Your task to perform on an android device: open a bookmark in the chrome app Image 0: 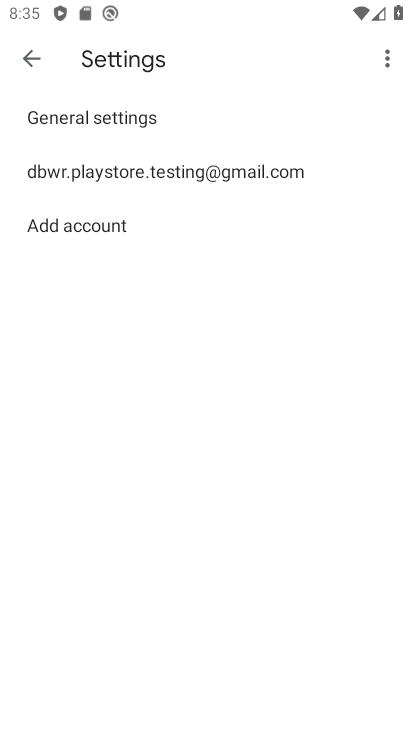
Step 0: press home button
Your task to perform on an android device: open a bookmark in the chrome app Image 1: 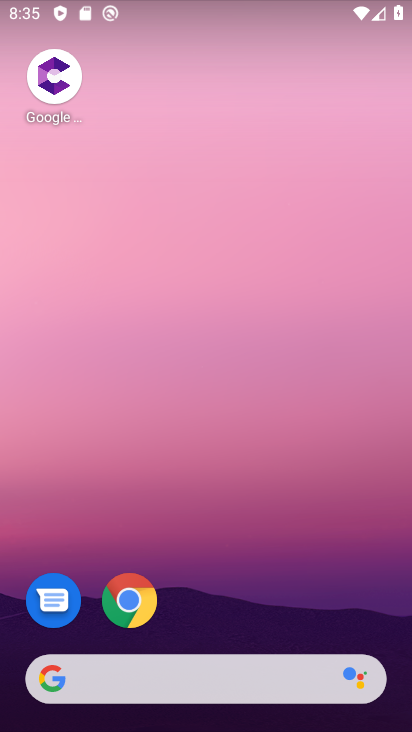
Step 1: click (137, 597)
Your task to perform on an android device: open a bookmark in the chrome app Image 2: 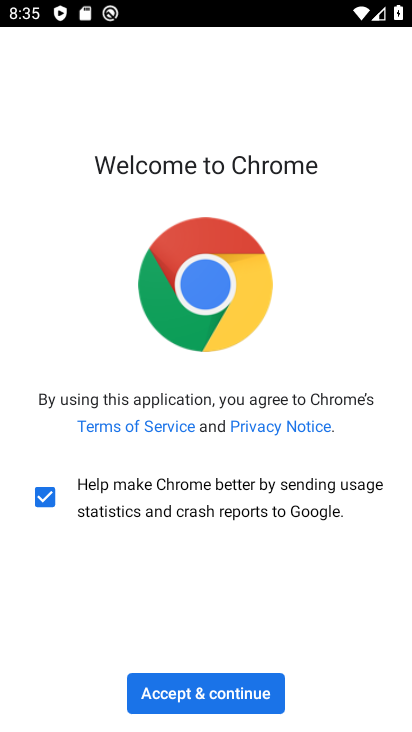
Step 2: click (235, 698)
Your task to perform on an android device: open a bookmark in the chrome app Image 3: 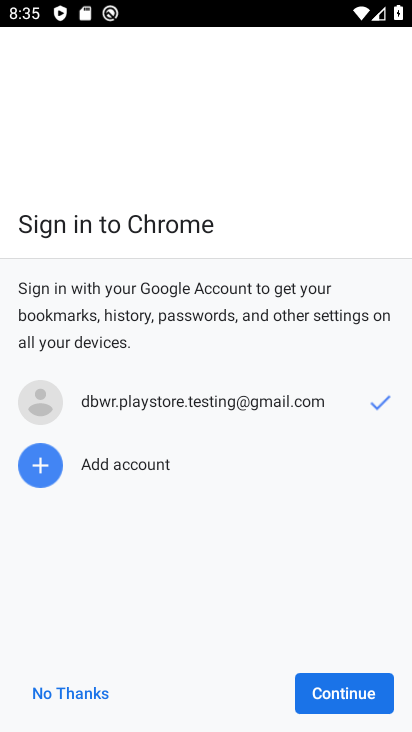
Step 3: click (332, 703)
Your task to perform on an android device: open a bookmark in the chrome app Image 4: 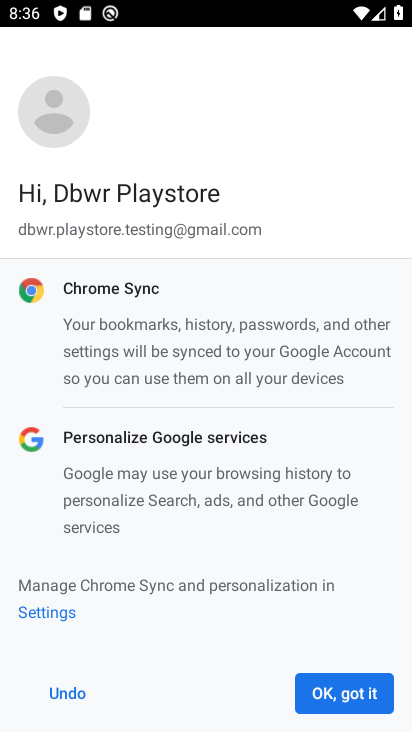
Step 4: click (332, 703)
Your task to perform on an android device: open a bookmark in the chrome app Image 5: 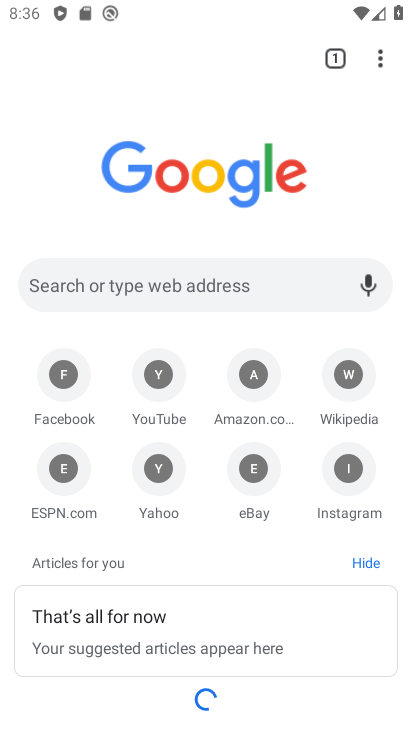
Step 5: click (382, 62)
Your task to perform on an android device: open a bookmark in the chrome app Image 6: 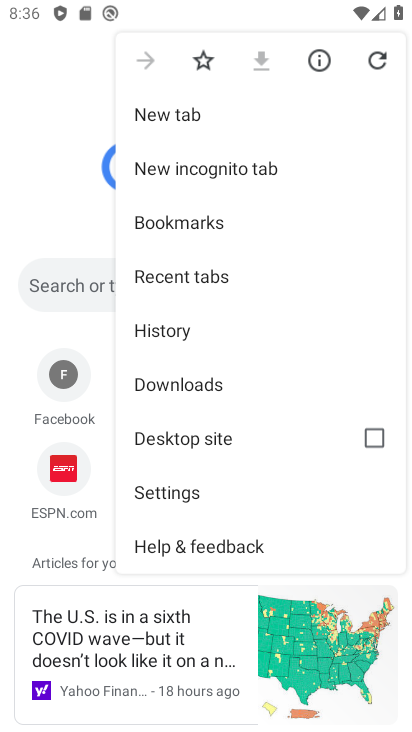
Step 6: click (205, 227)
Your task to perform on an android device: open a bookmark in the chrome app Image 7: 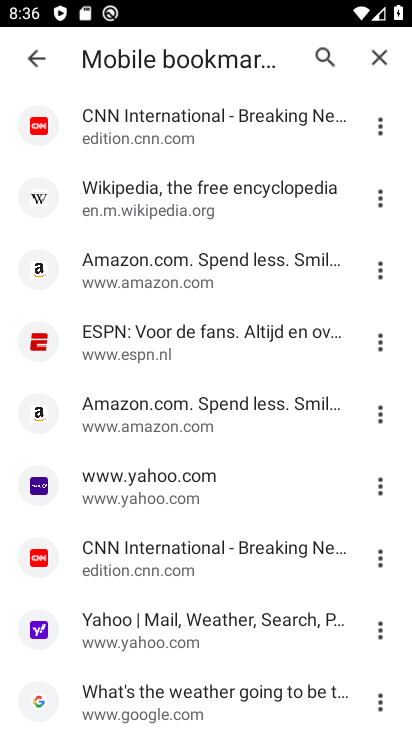
Step 7: click (119, 144)
Your task to perform on an android device: open a bookmark in the chrome app Image 8: 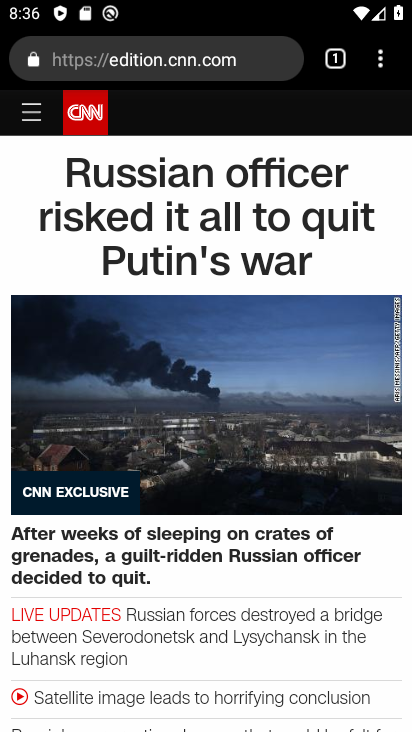
Step 8: task complete